Your task to perform on an android device: Open Chrome and go to settings Image 0: 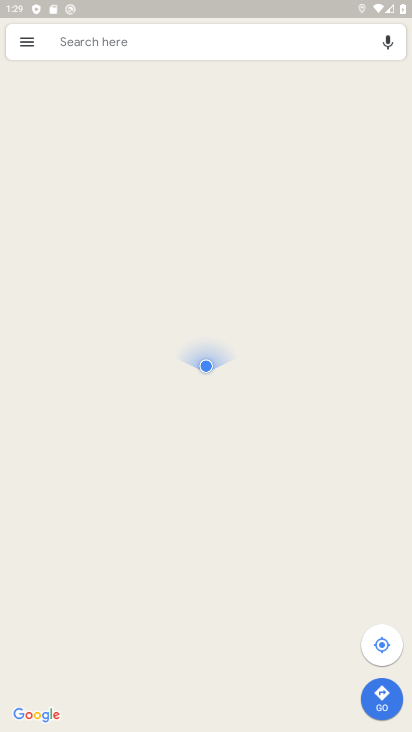
Step 0: press back button
Your task to perform on an android device: Open Chrome and go to settings Image 1: 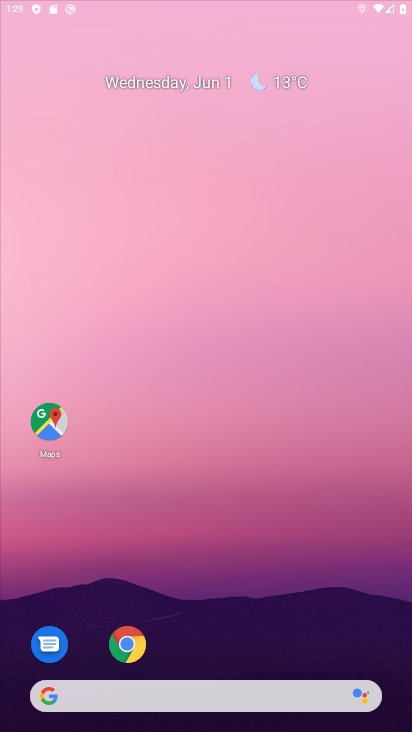
Step 1: press back button
Your task to perform on an android device: Open Chrome and go to settings Image 2: 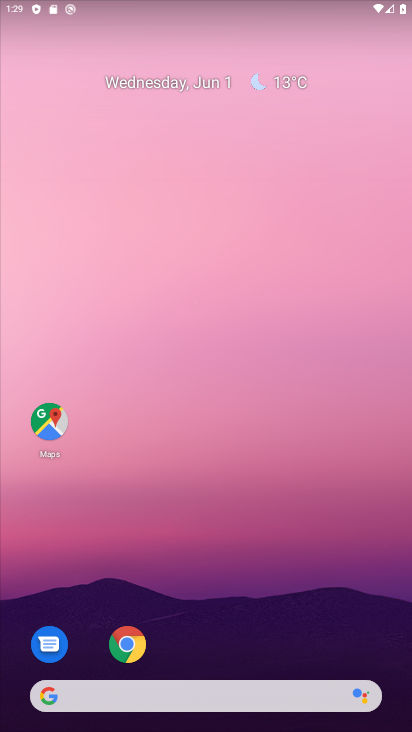
Step 2: drag from (239, 618) to (152, 52)
Your task to perform on an android device: Open Chrome and go to settings Image 3: 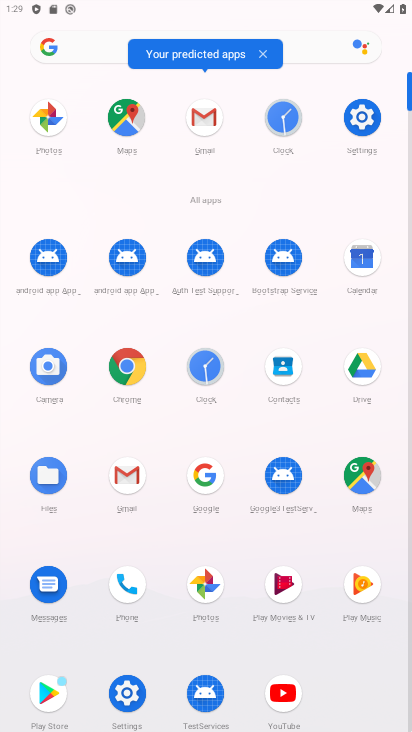
Step 3: click (125, 365)
Your task to perform on an android device: Open Chrome and go to settings Image 4: 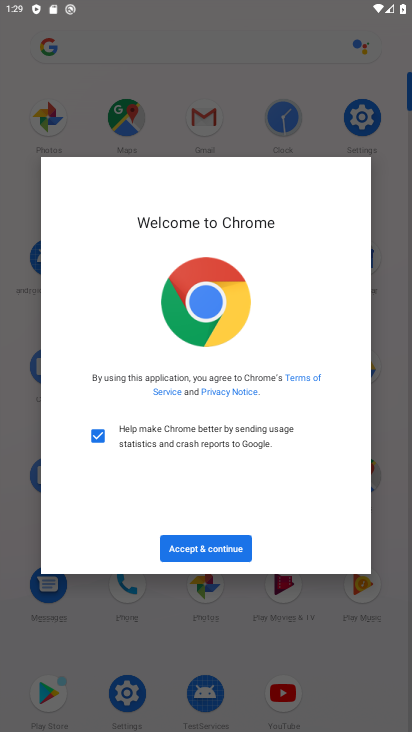
Step 4: click (199, 549)
Your task to perform on an android device: Open Chrome and go to settings Image 5: 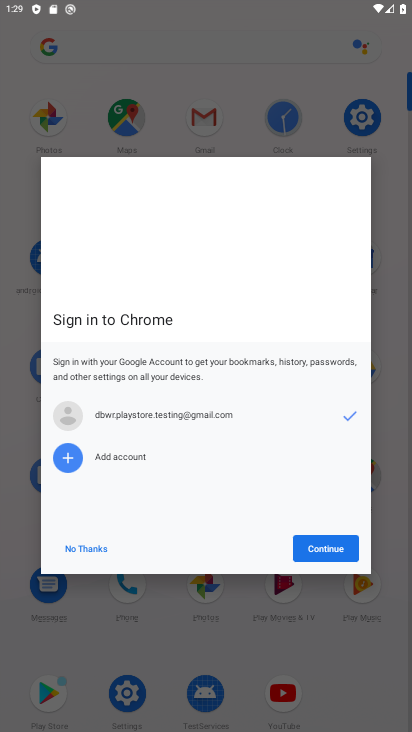
Step 5: click (319, 550)
Your task to perform on an android device: Open Chrome and go to settings Image 6: 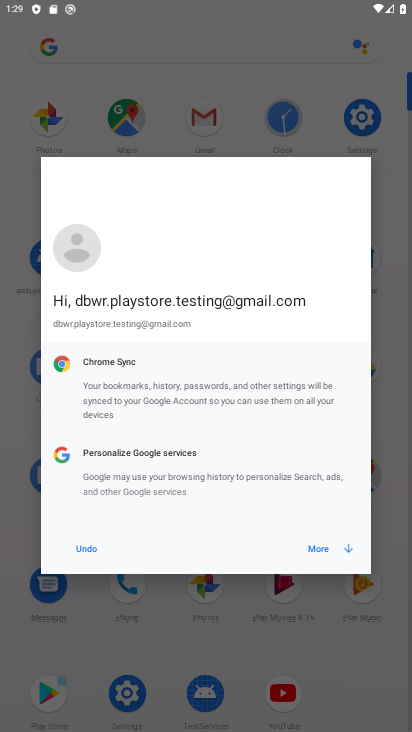
Step 6: click (314, 547)
Your task to perform on an android device: Open Chrome and go to settings Image 7: 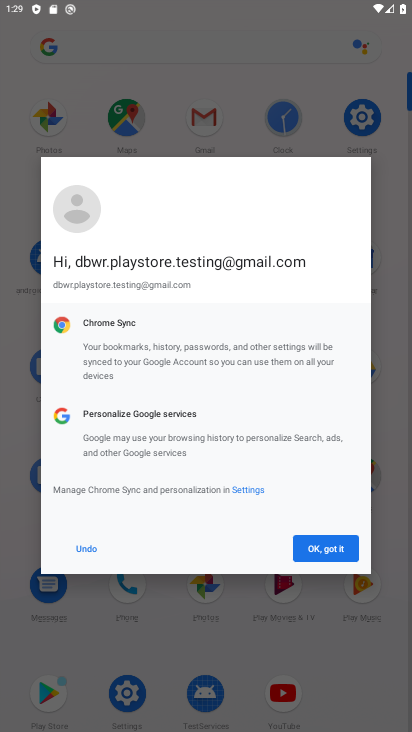
Step 7: click (316, 546)
Your task to perform on an android device: Open Chrome and go to settings Image 8: 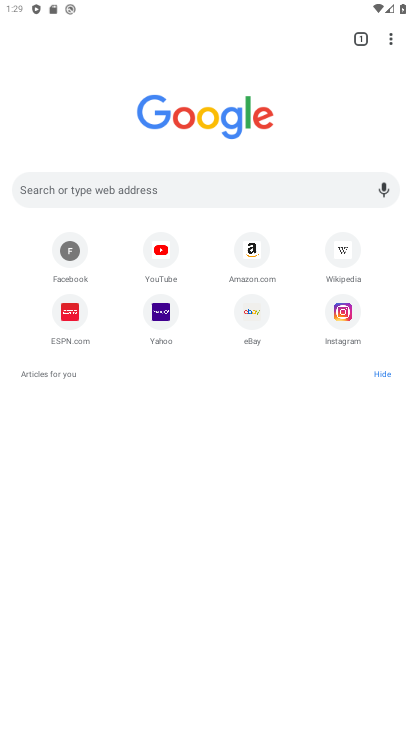
Step 8: task complete